Your task to perform on an android device: turn on location history Image 0: 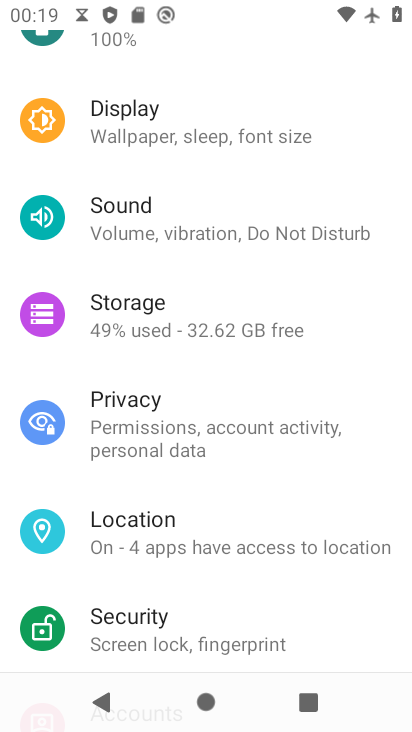
Step 0: press home button
Your task to perform on an android device: turn on location history Image 1: 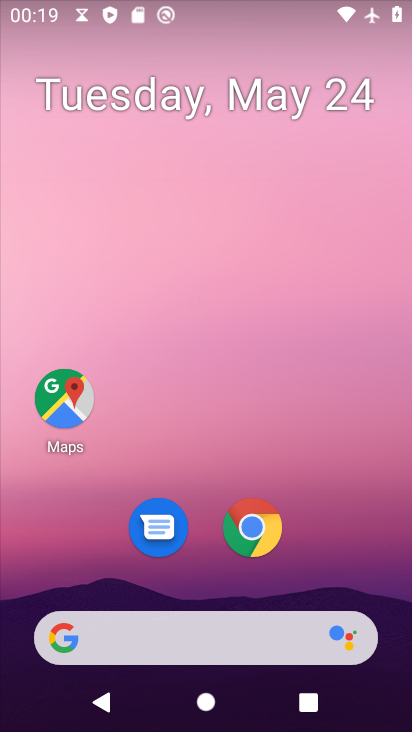
Step 1: click (55, 411)
Your task to perform on an android device: turn on location history Image 2: 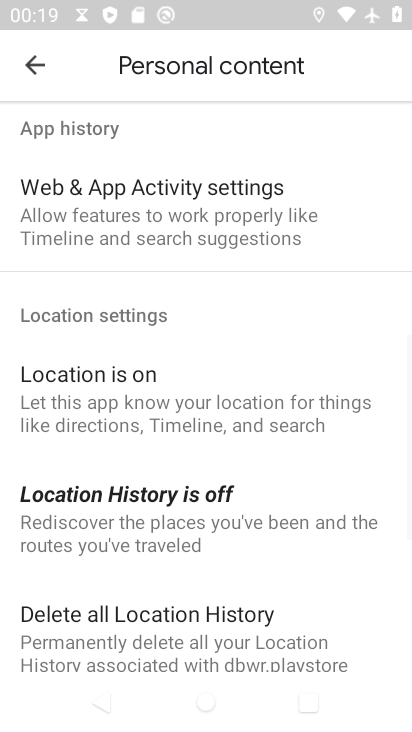
Step 2: click (128, 518)
Your task to perform on an android device: turn on location history Image 3: 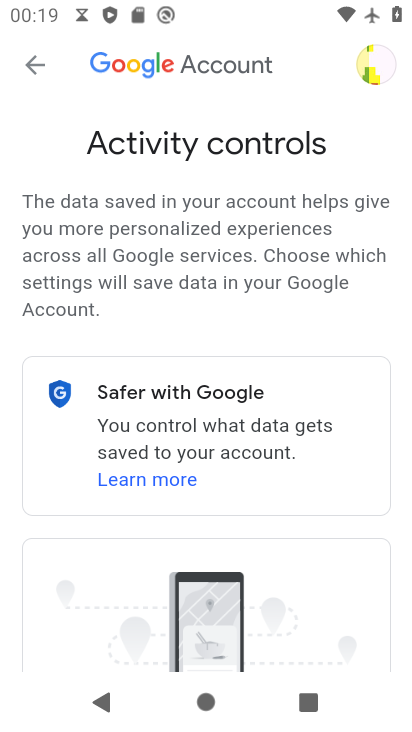
Step 3: drag from (161, 601) to (274, 123)
Your task to perform on an android device: turn on location history Image 4: 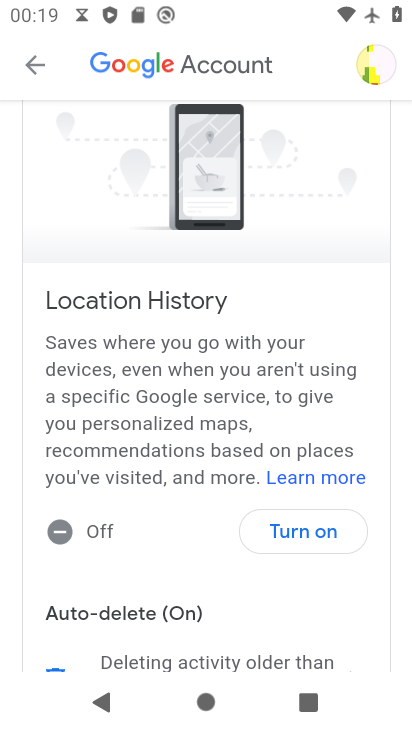
Step 4: click (317, 529)
Your task to perform on an android device: turn on location history Image 5: 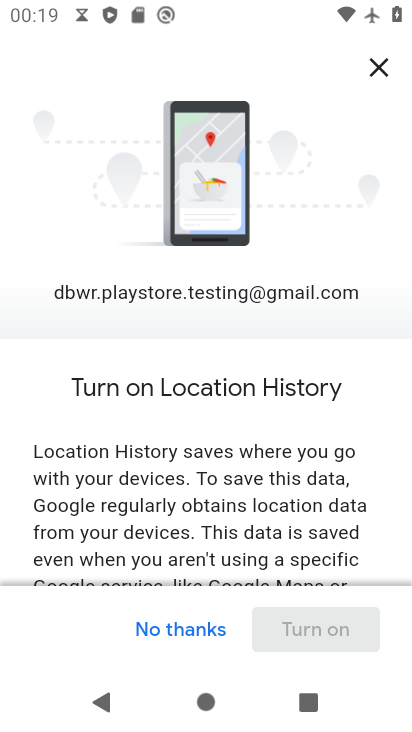
Step 5: drag from (240, 517) to (280, 150)
Your task to perform on an android device: turn on location history Image 6: 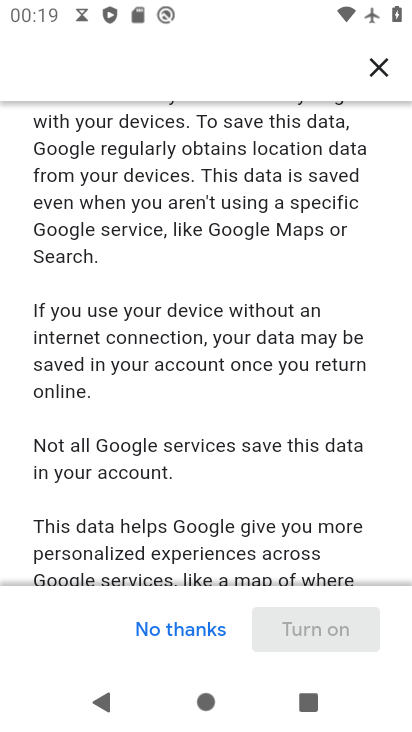
Step 6: drag from (229, 496) to (242, 56)
Your task to perform on an android device: turn on location history Image 7: 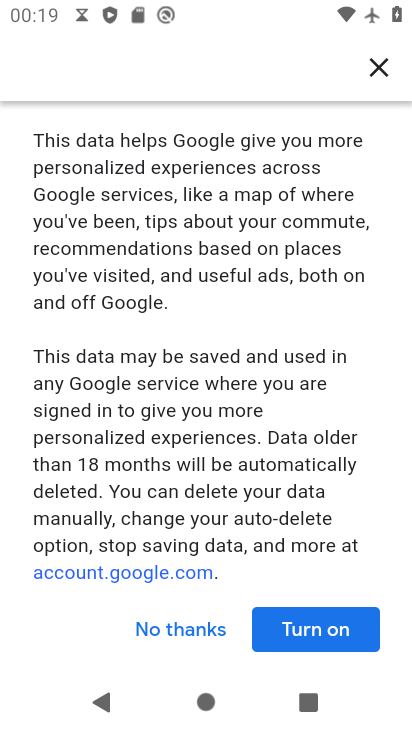
Step 7: click (316, 628)
Your task to perform on an android device: turn on location history Image 8: 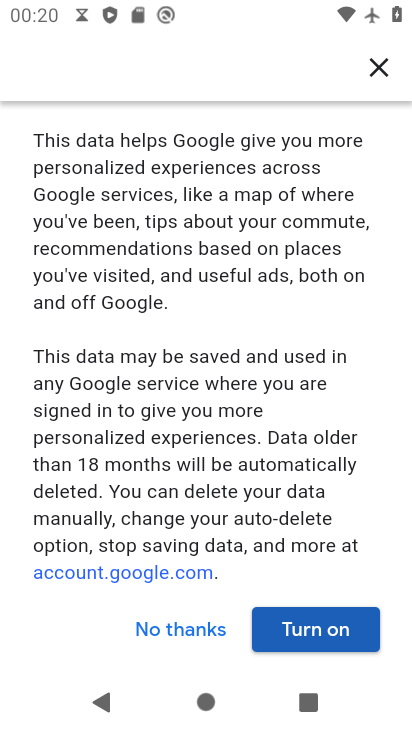
Step 8: click (316, 631)
Your task to perform on an android device: turn on location history Image 9: 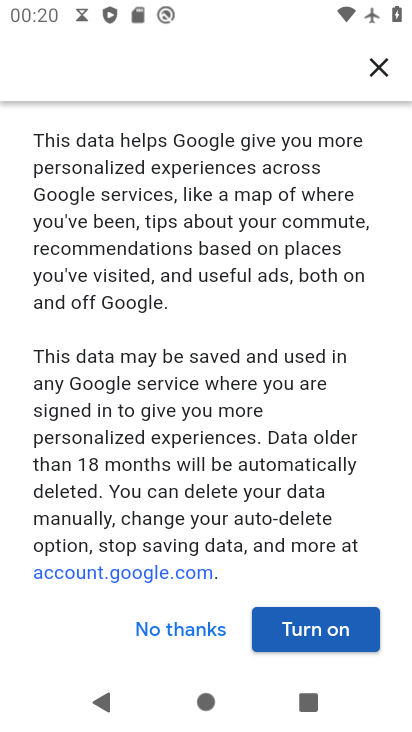
Step 9: click (323, 629)
Your task to perform on an android device: turn on location history Image 10: 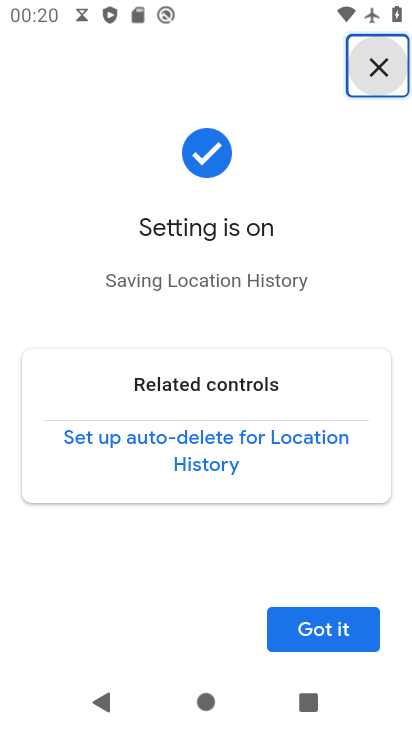
Step 10: click (325, 637)
Your task to perform on an android device: turn on location history Image 11: 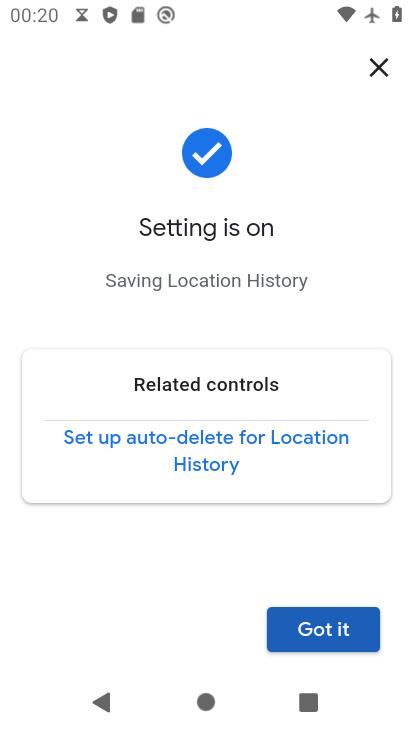
Step 11: click (332, 628)
Your task to perform on an android device: turn on location history Image 12: 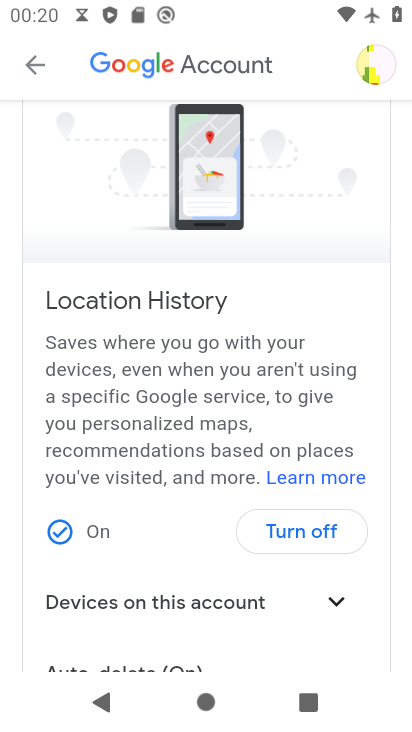
Step 12: task complete